Your task to perform on an android device: clear history in the chrome app Image 0: 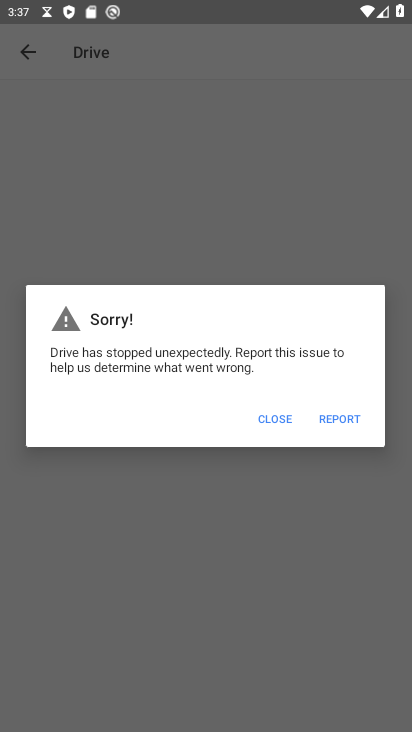
Step 0: click (262, 410)
Your task to perform on an android device: clear history in the chrome app Image 1: 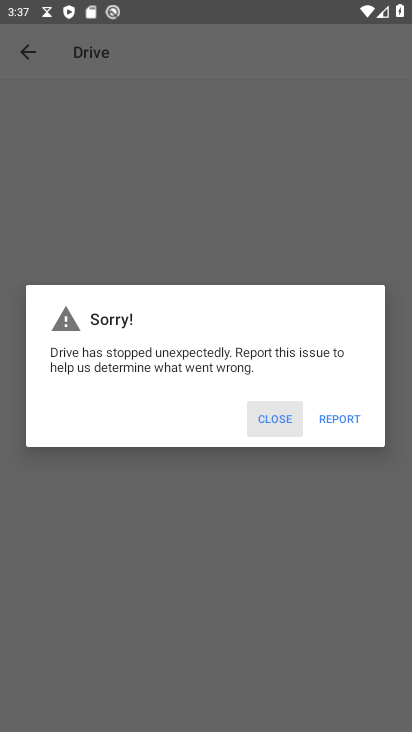
Step 1: drag from (282, 423) to (262, 386)
Your task to perform on an android device: clear history in the chrome app Image 2: 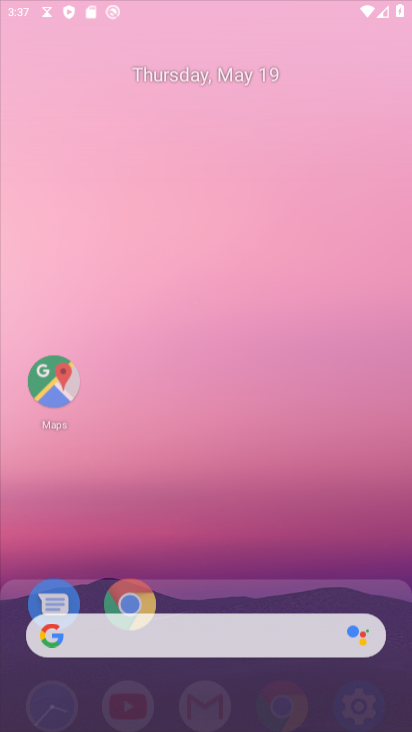
Step 2: click (268, 396)
Your task to perform on an android device: clear history in the chrome app Image 3: 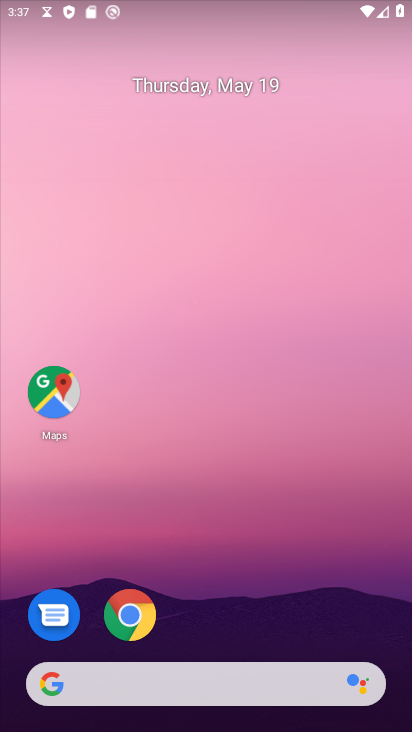
Step 3: drag from (256, 623) to (184, 153)
Your task to perform on an android device: clear history in the chrome app Image 4: 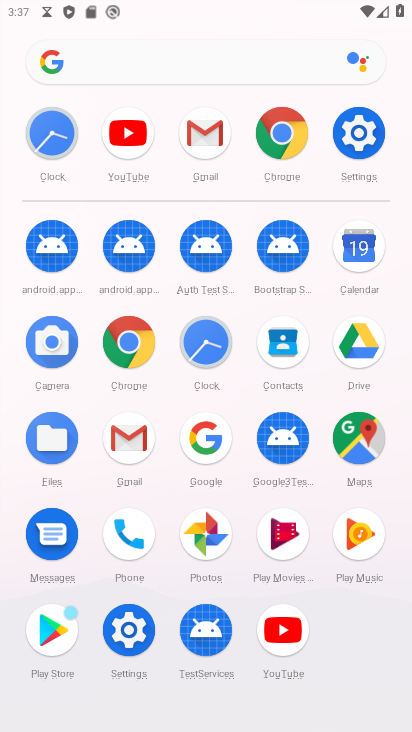
Step 4: click (272, 148)
Your task to perform on an android device: clear history in the chrome app Image 5: 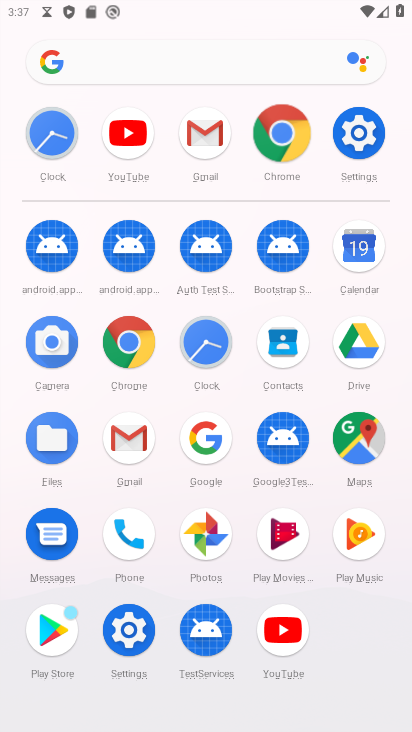
Step 5: click (267, 134)
Your task to perform on an android device: clear history in the chrome app Image 6: 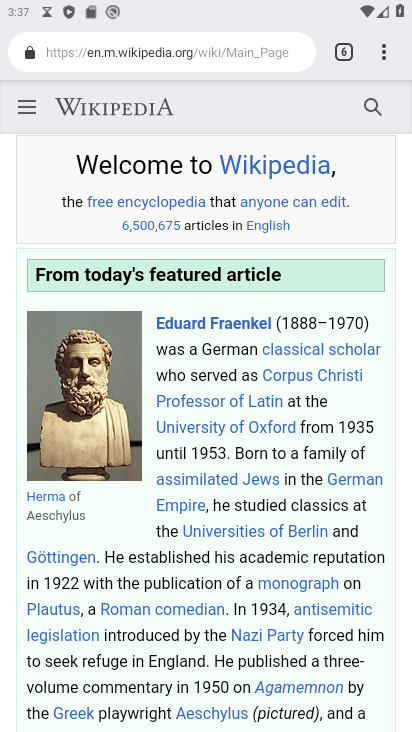
Step 6: drag from (383, 47) to (187, 296)
Your task to perform on an android device: clear history in the chrome app Image 7: 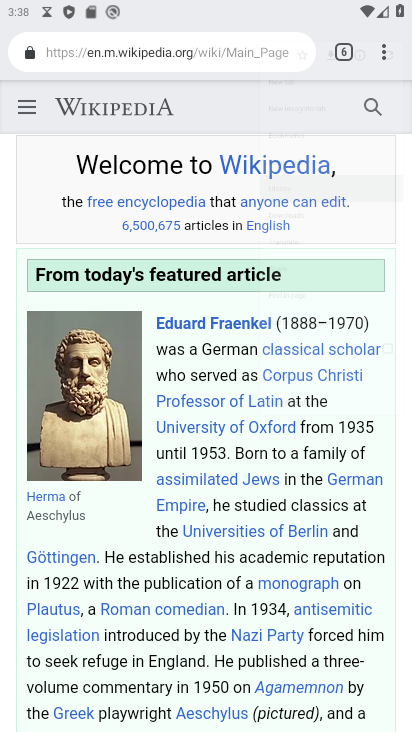
Step 7: click (187, 297)
Your task to perform on an android device: clear history in the chrome app Image 8: 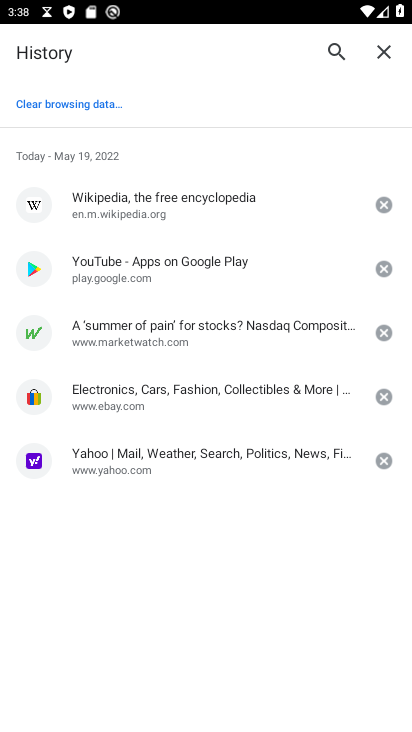
Step 8: click (185, 299)
Your task to perform on an android device: clear history in the chrome app Image 9: 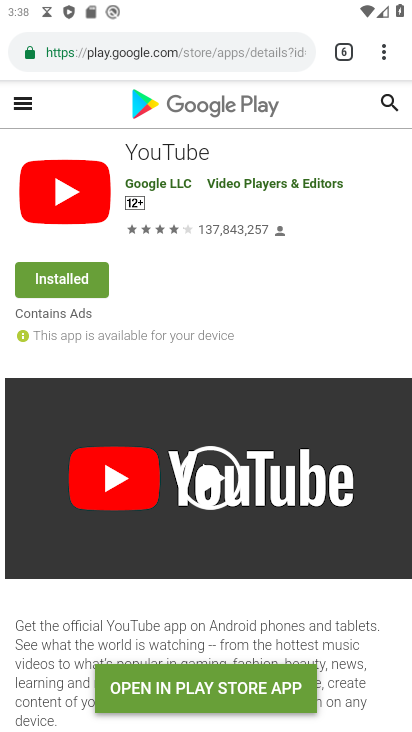
Step 9: press back button
Your task to perform on an android device: clear history in the chrome app Image 10: 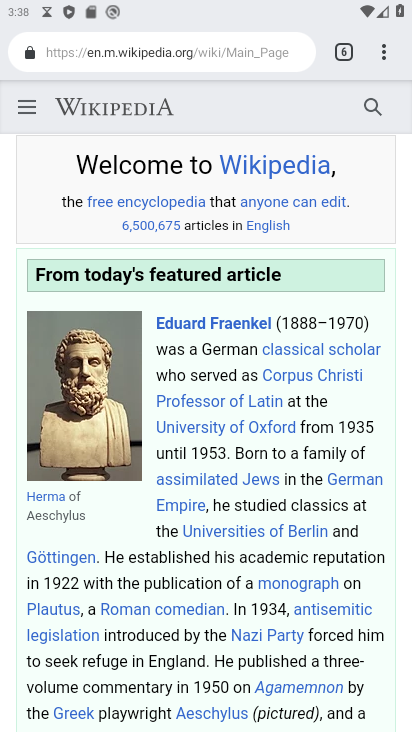
Step 10: press back button
Your task to perform on an android device: clear history in the chrome app Image 11: 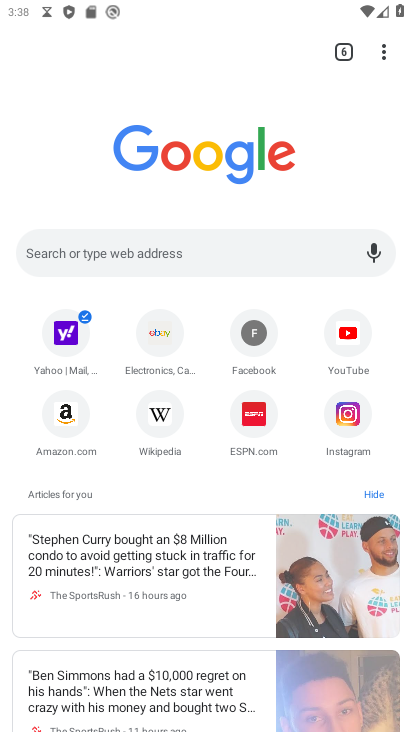
Step 11: drag from (384, 40) to (174, 289)
Your task to perform on an android device: clear history in the chrome app Image 12: 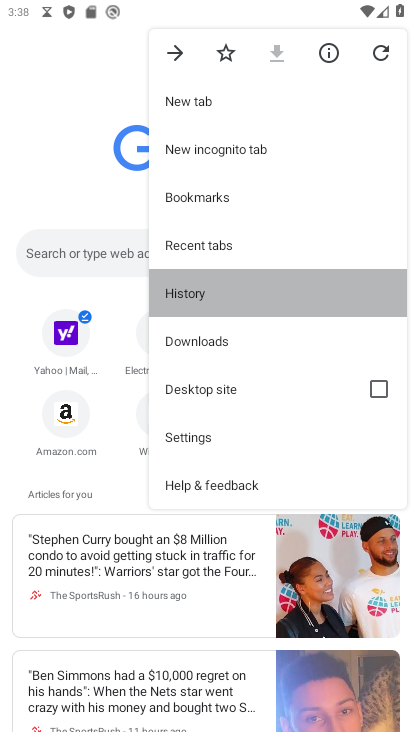
Step 12: click (177, 290)
Your task to perform on an android device: clear history in the chrome app Image 13: 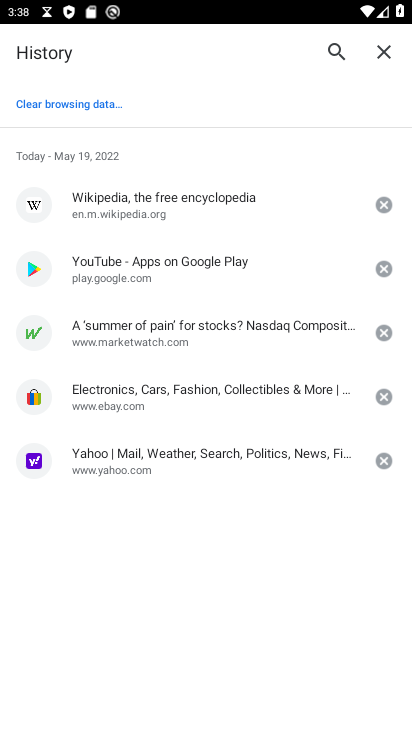
Step 13: click (53, 107)
Your task to perform on an android device: clear history in the chrome app Image 14: 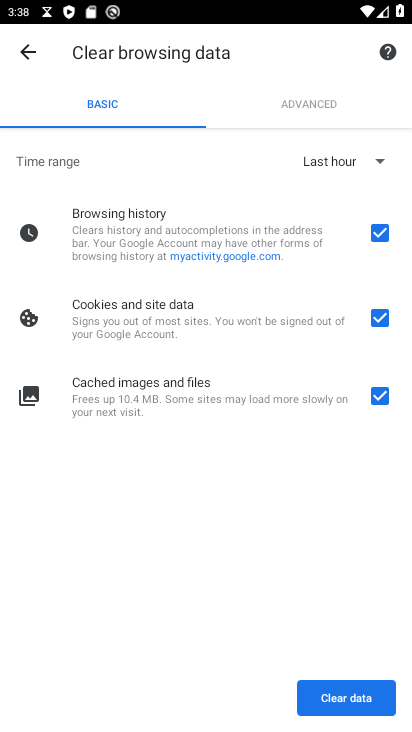
Step 14: click (357, 698)
Your task to perform on an android device: clear history in the chrome app Image 15: 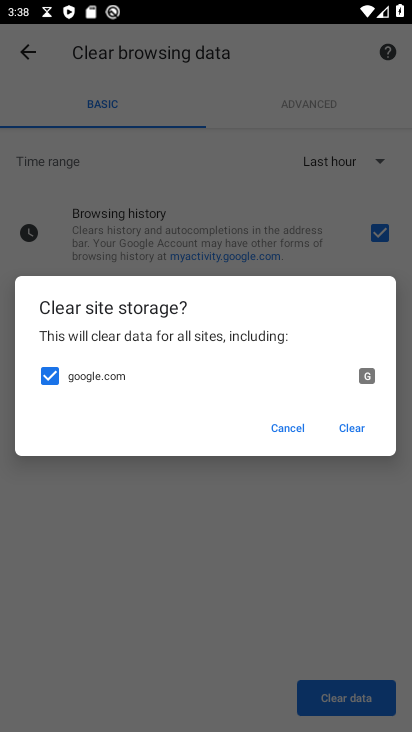
Step 15: click (342, 431)
Your task to perform on an android device: clear history in the chrome app Image 16: 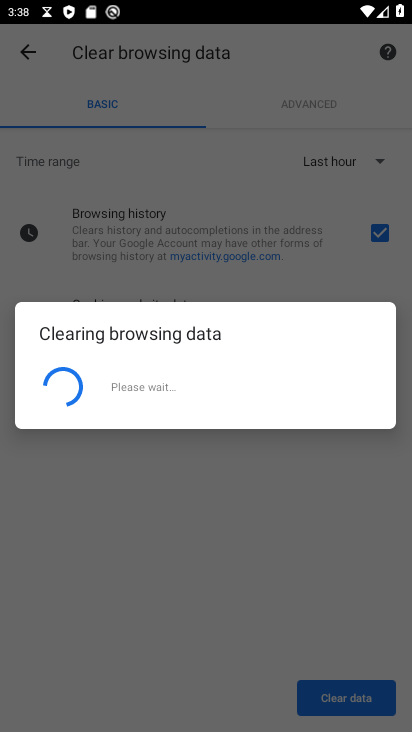
Step 16: task complete